Your task to perform on an android device: star an email in the gmail app Image 0: 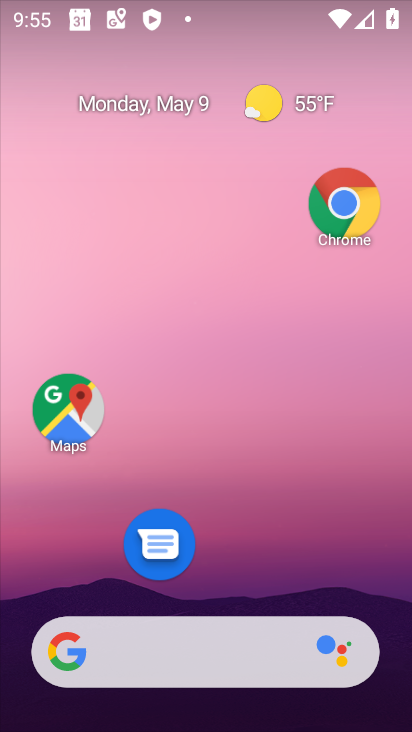
Step 0: drag from (230, 569) to (217, 63)
Your task to perform on an android device: star an email in the gmail app Image 1: 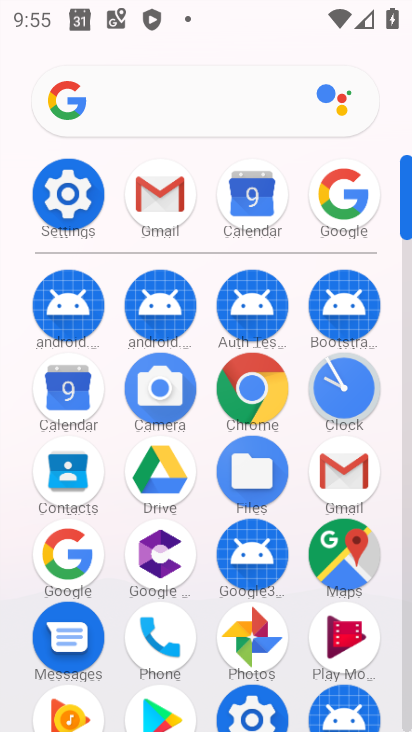
Step 1: click (152, 195)
Your task to perform on an android device: star an email in the gmail app Image 2: 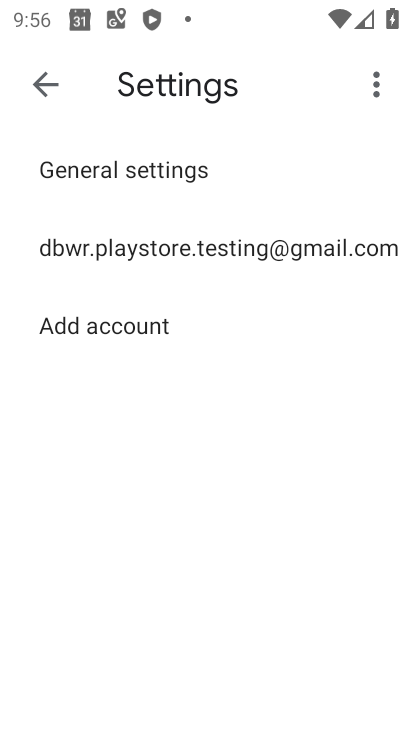
Step 2: click (147, 249)
Your task to perform on an android device: star an email in the gmail app Image 3: 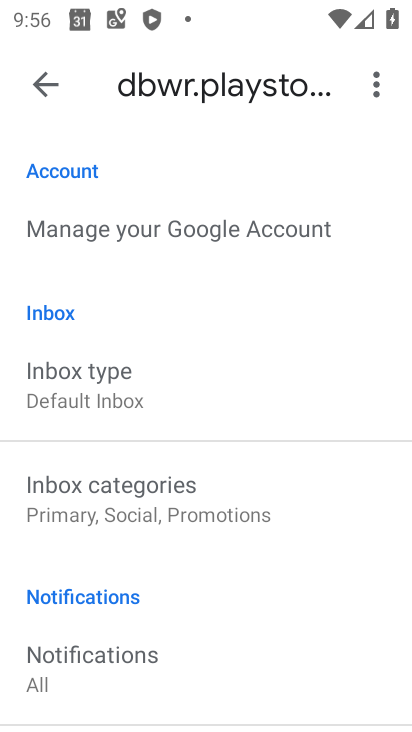
Step 3: drag from (177, 575) to (178, 451)
Your task to perform on an android device: star an email in the gmail app Image 4: 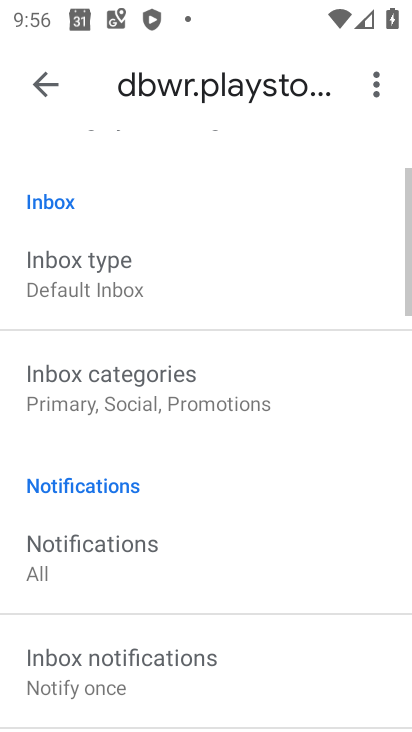
Step 4: click (44, 89)
Your task to perform on an android device: star an email in the gmail app Image 5: 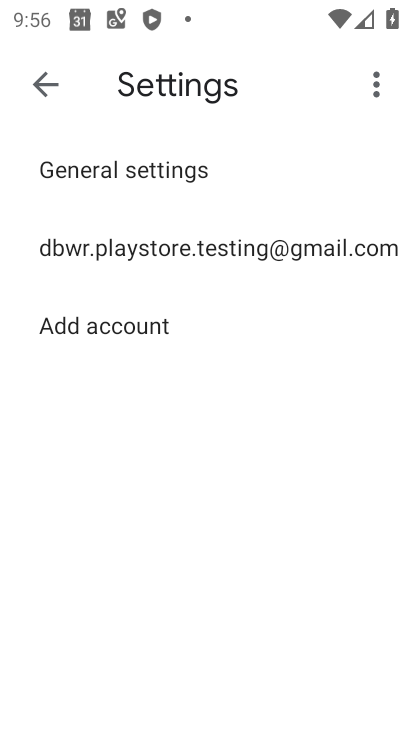
Step 5: click (35, 86)
Your task to perform on an android device: star an email in the gmail app Image 6: 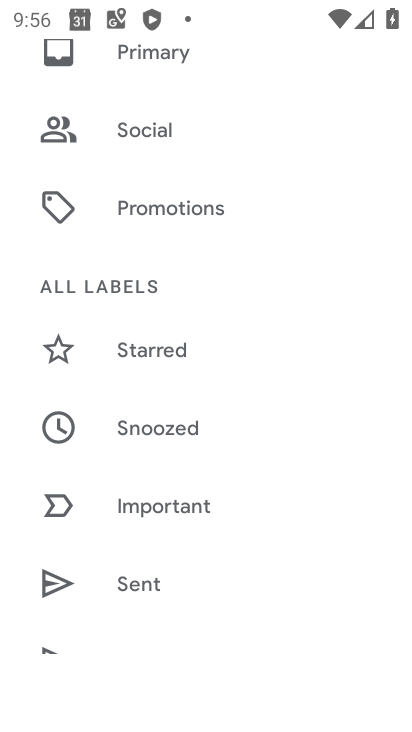
Step 6: drag from (126, 105) to (202, 536)
Your task to perform on an android device: star an email in the gmail app Image 7: 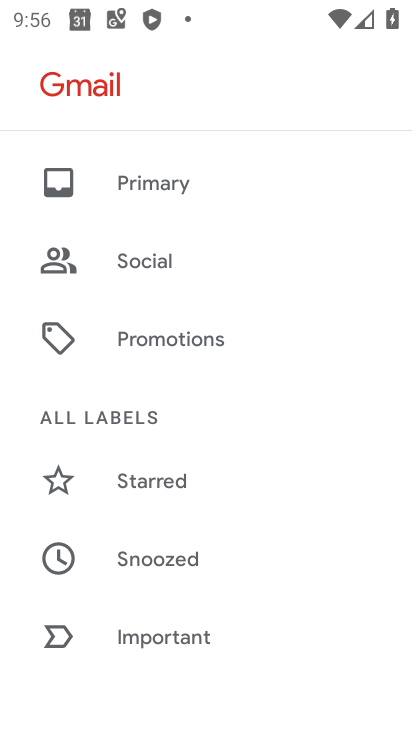
Step 7: drag from (251, 564) to (243, 203)
Your task to perform on an android device: star an email in the gmail app Image 8: 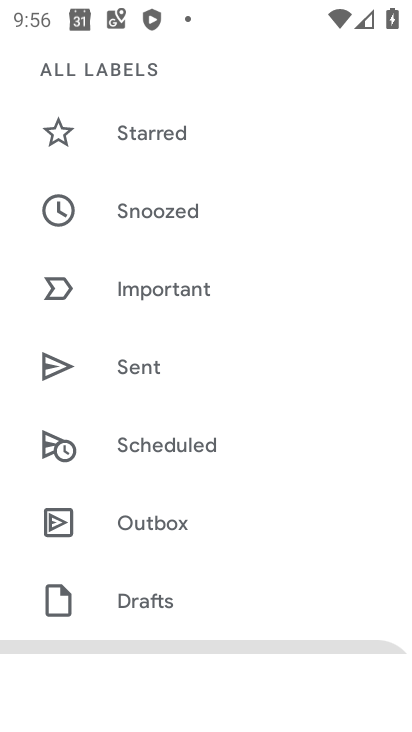
Step 8: drag from (218, 574) to (199, 316)
Your task to perform on an android device: star an email in the gmail app Image 9: 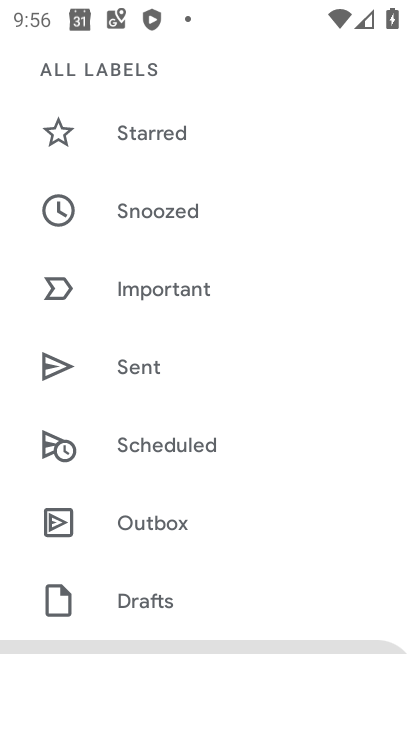
Step 9: drag from (156, 131) to (241, 143)
Your task to perform on an android device: star an email in the gmail app Image 10: 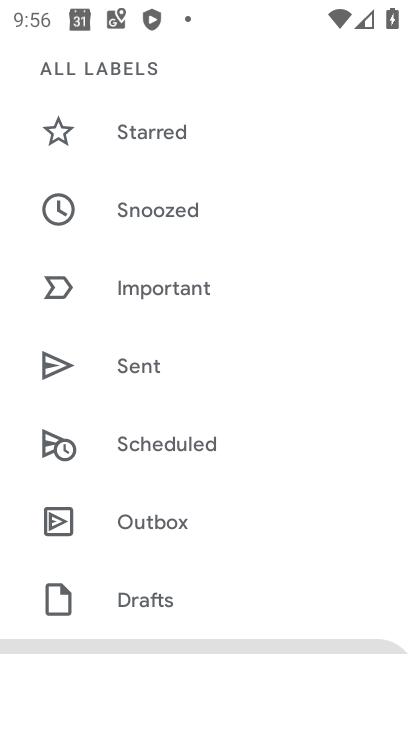
Step 10: drag from (202, 480) to (212, 137)
Your task to perform on an android device: star an email in the gmail app Image 11: 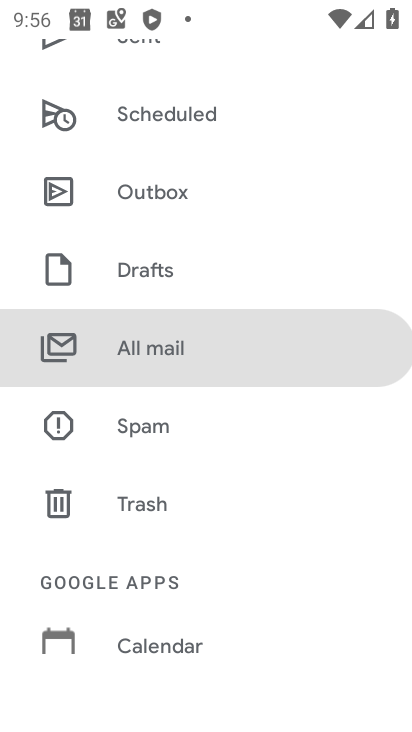
Step 11: drag from (156, 559) to (173, 473)
Your task to perform on an android device: star an email in the gmail app Image 12: 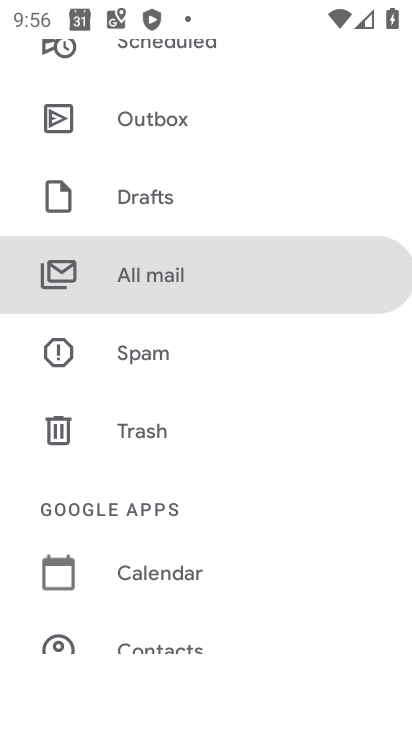
Step 12: click (129, 294)
Your task to perform on an android device: star an email in the gmail app Image 13: 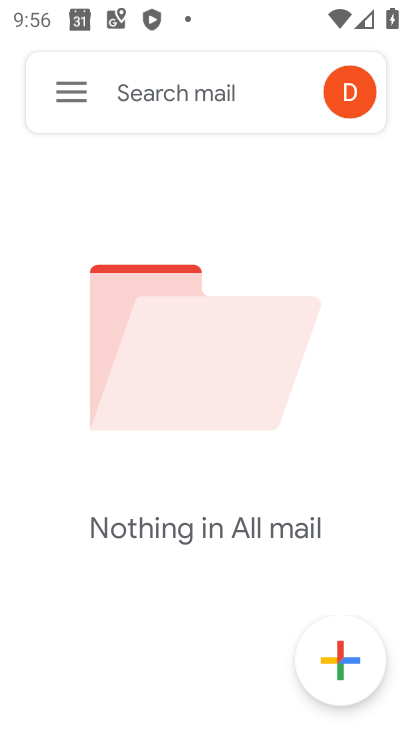
Step 13: task complete